Your task to perform on an android device: Open wifi settings Image 0: 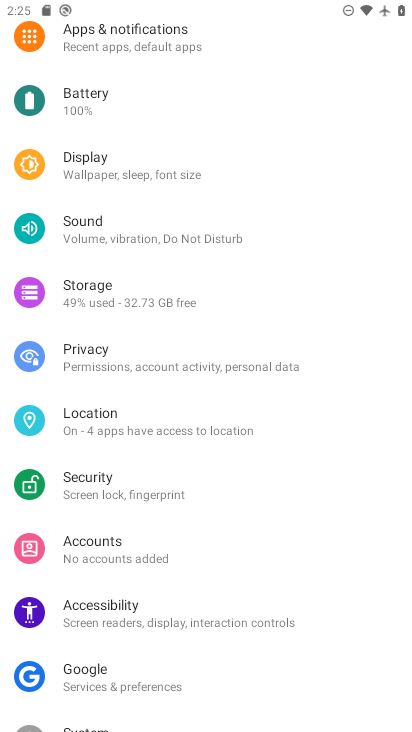
Step 0: press home button
Your task to perform on an android device: Open wifi settings Image 1: 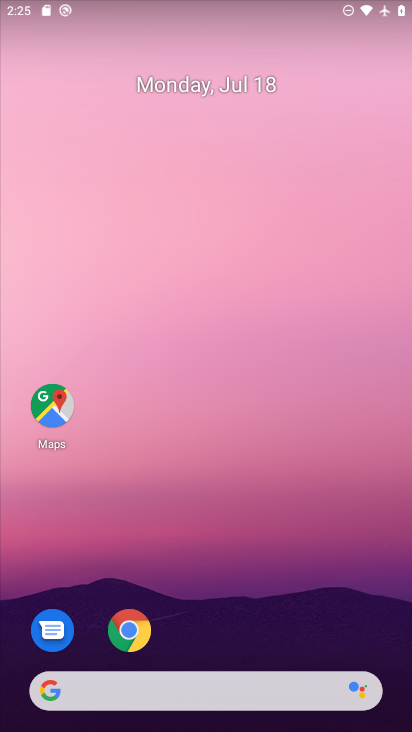
Step 1: drag from (341, 631) to (177, 57)
Your task to perform on an android device: Open wifi settings Image 2: 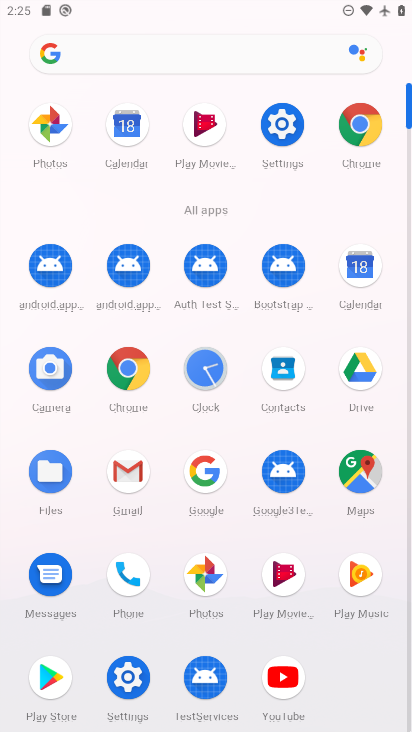
Step 2: click (299, 139)
Your task to perform on an android device: Open wifi settings Image 3: 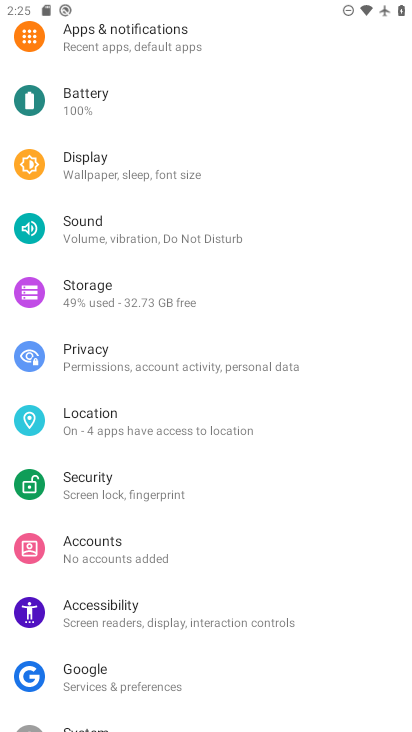
Step 3: drag from (278, 112) to (150, 696)
Your task to perform on an android device: Open wifi settings Image 4: 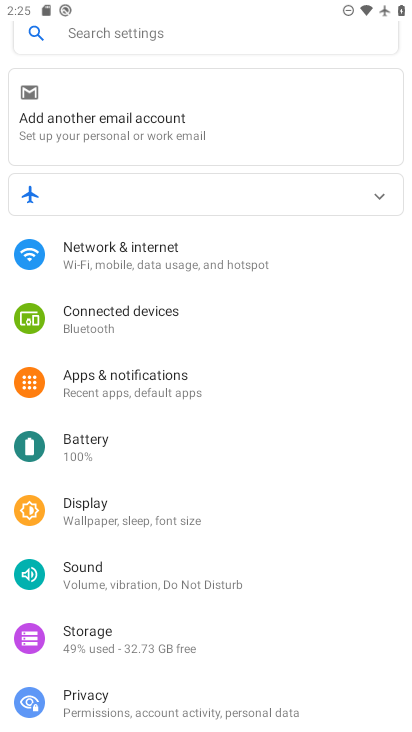
Step 4: click (109, 245)
Your task to perform on an android device: Open wifi settings Image 5: 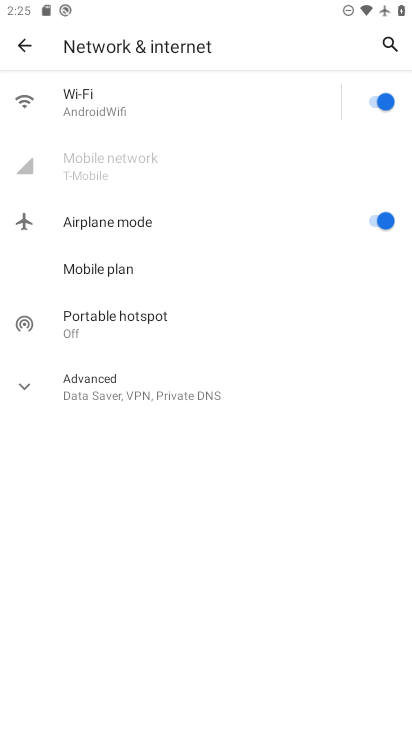
Step 5: click (93, 93)
Your task to perform on an android device: Open wifi settings Image 6: 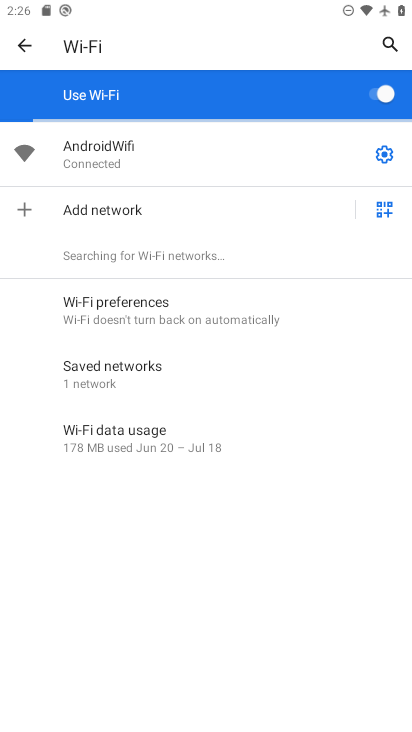
Step 6: task complete